Your task to perform on an android device: turn on airplane mode Image 0: 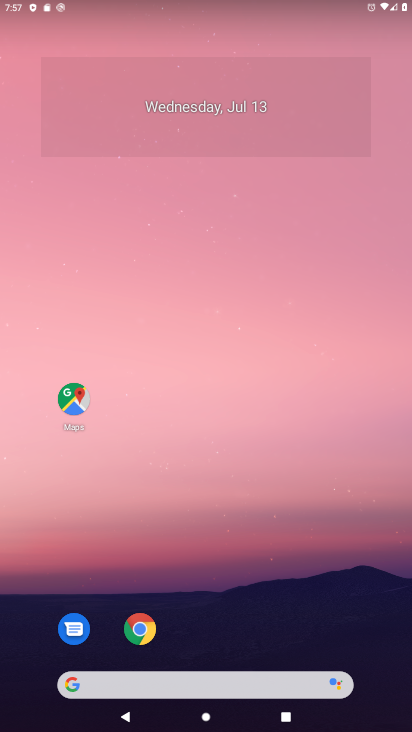
Step 0: drag from (57, 637) to (227, 32)
Your task to perform on an android device: turn on airplane mode Image 1: 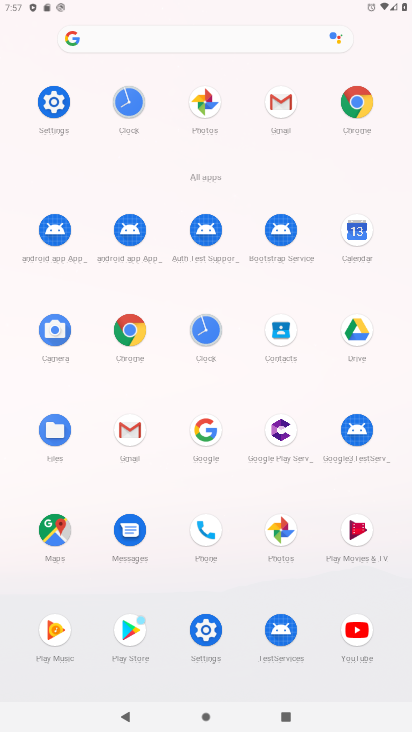
Step 1: click (212, 631)
Your task to perform on an android device: turn on airplane mode Image 2: 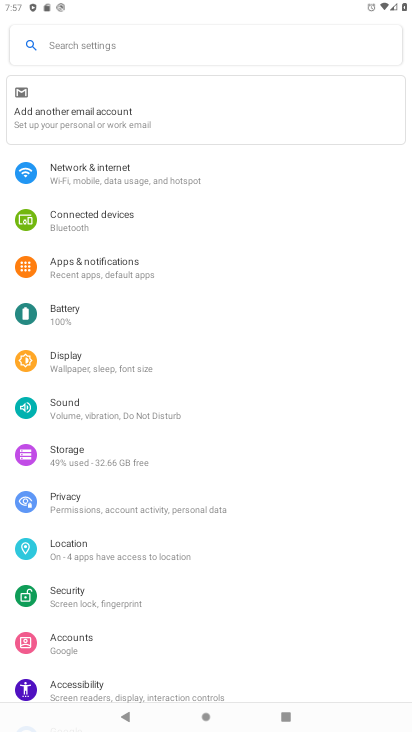
Step 2: click (104, 168)
Your task to perform on an android device: turn on airplane mode Image 3: 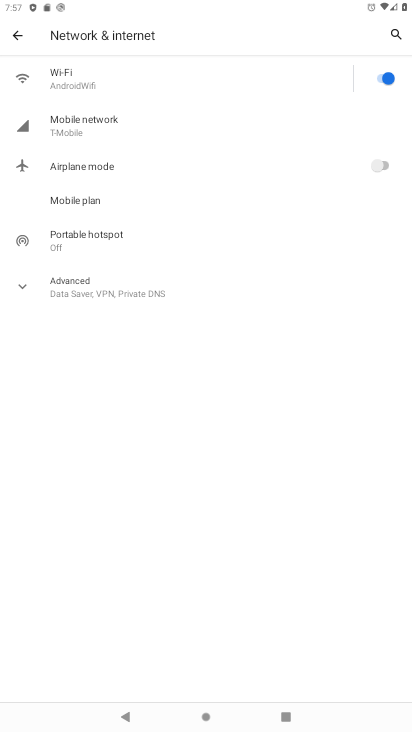
Step 3: click (374, 166)
Your task to perform on an android device: turn on airplane mode Image 4: 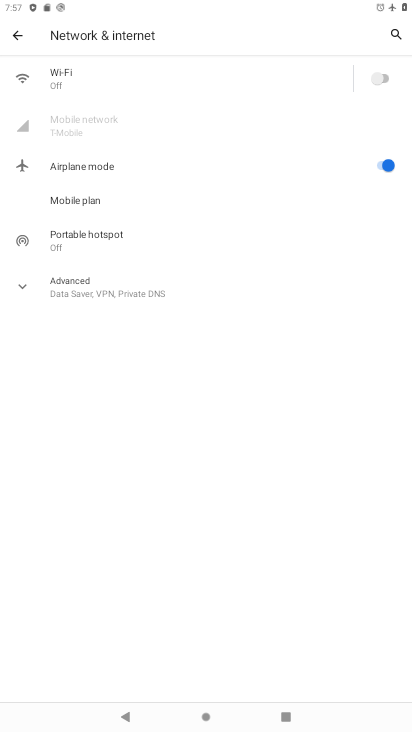
Step 4: task complete